Your task to perform on an android device: Do I have any events this weekend? Image 0: 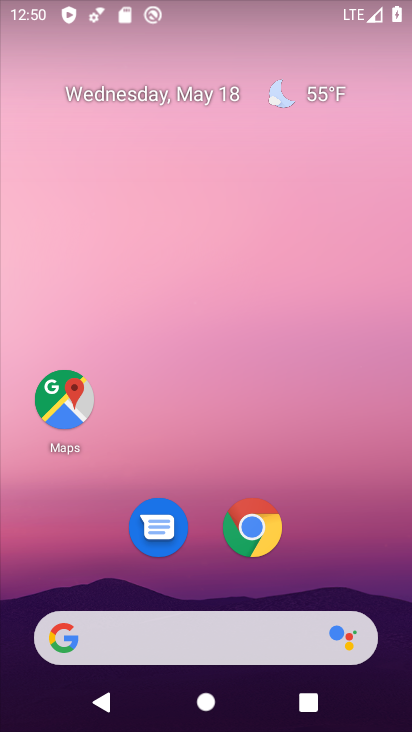
Step 0: drag from (334, 566) to (192, 60)
Your task to perform on an android device: Do I have any events this weekend? Image 1: 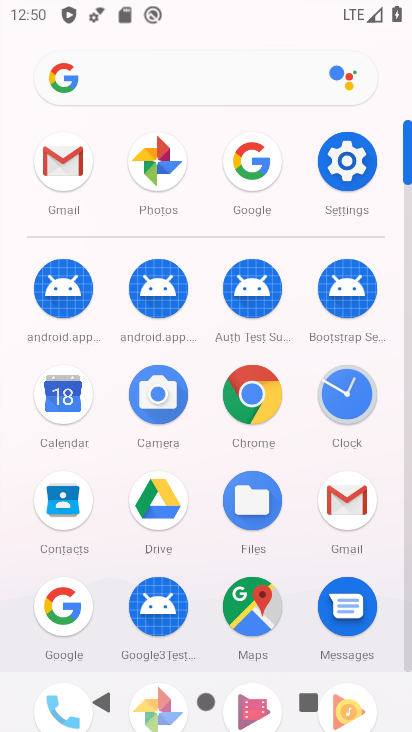
Step 1: click (60, 407)
Your task to perform on an android device: Do I have any events this weekend? Image 2: 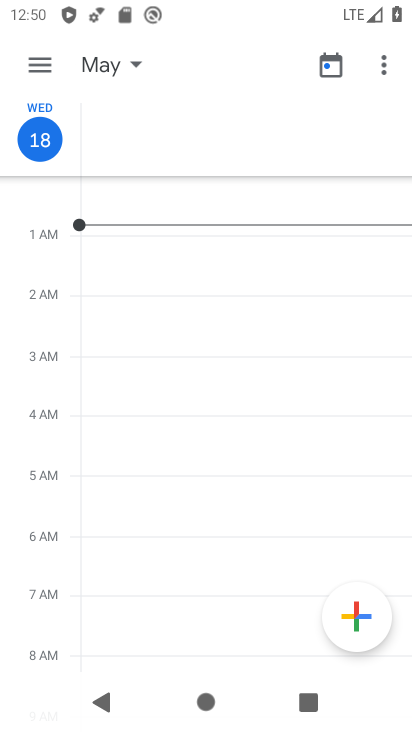
Step 2: click (32, 70)
Your task to perform on an android device: Do I have any events this weekend? Image 3: 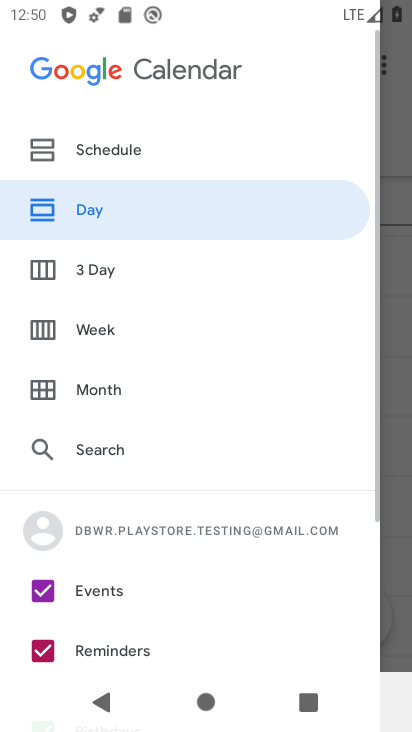
Step 3: click (124, 333)
Your task to perform on an android device: Do I have any events this weekend? Image 4: 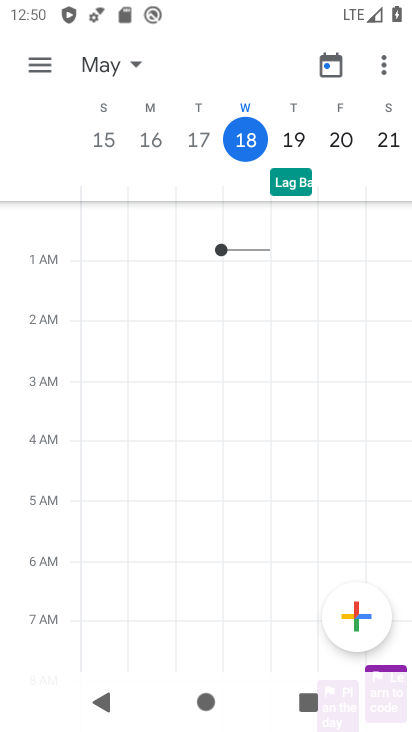
Step 4: task complete